Your task to perform on an android device: Show me popular games on the Play Store Image 0: 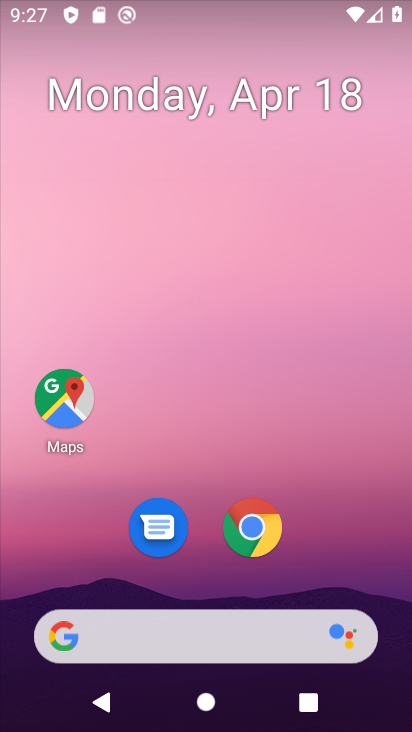
Step 0: drag from (298, 418) to (318, 83)
Your task to perform on an android device: Show me popular games on the Play Store Image 1: 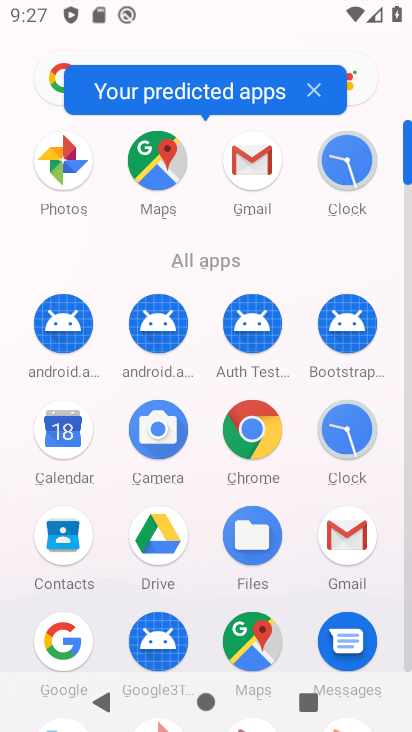
Step 1: drag from (267, 521) to (250, 232)
Your task to perform on an android device: Show me popular games on the Play Store Image 2: 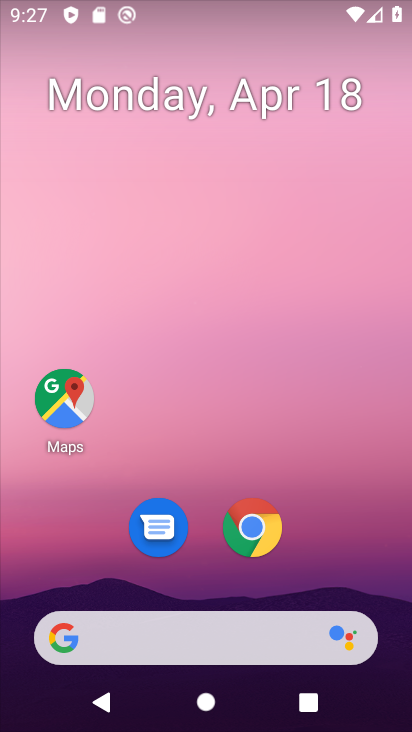
Step 2: drag from (289, 499) to (300, 50)
Your task to perform on an android device: Show me popular games on the Play Store Image 3: 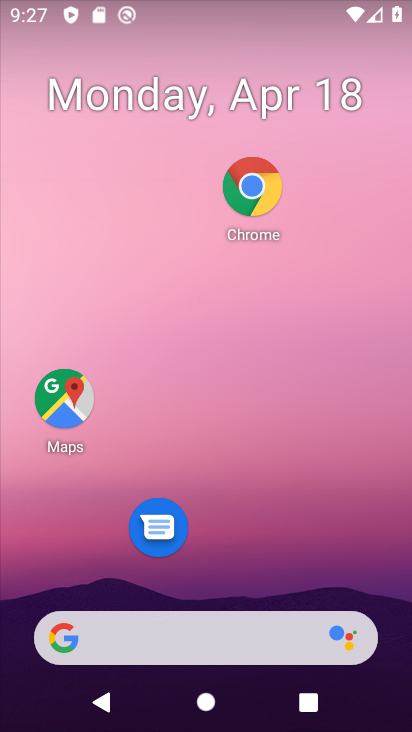
Step 3: drag from (309, 97) to (300, 8)
Your task to perform on an android device: Show me popular games on the Play Store Image 4: 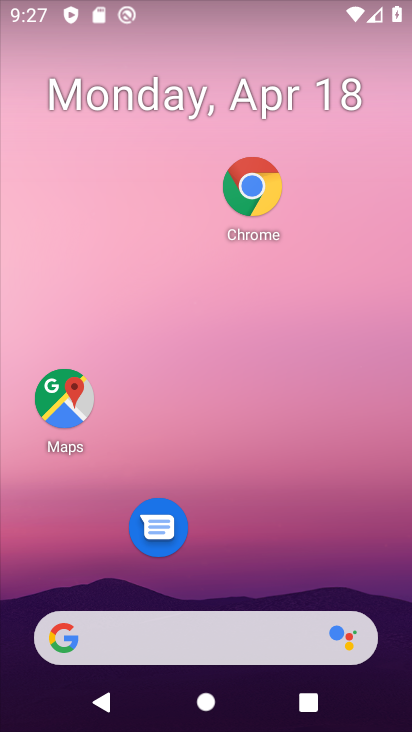
Step 4: drag from (233, 483) to (212, 25)
Your task to perform on an android device: Show me popular games on the Play Store Image 5: 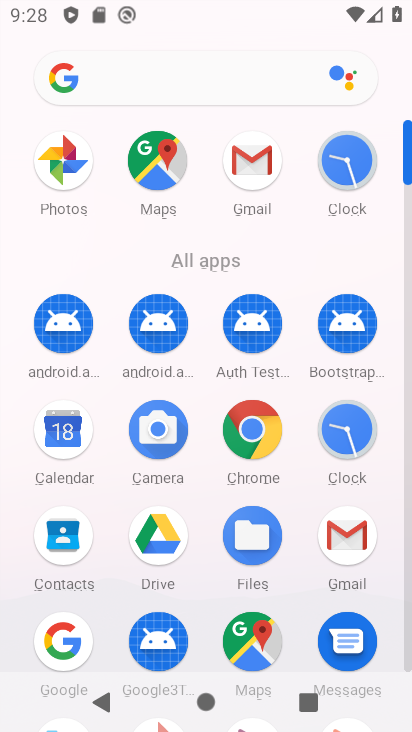
Step 5: drag from (292, 545) to (314, 212)
Your task to perform on an android device: Show me popular games on the Play Store Image 6: 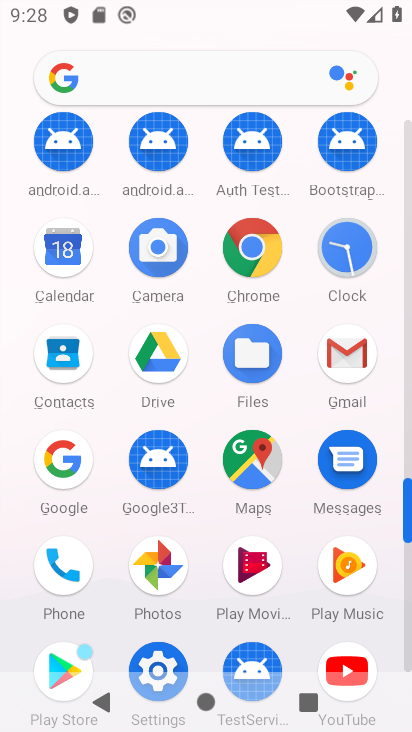
Step 6: click (71, 663)
Your task to perform on an android device: Show me popular games on the Play Store Image 7: 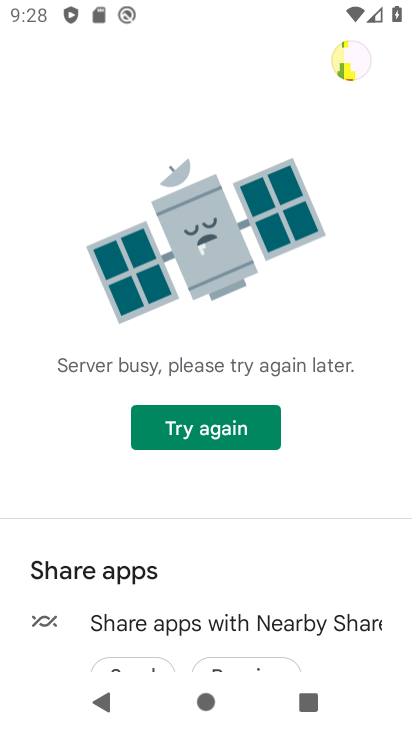
Step 7: click (238, 421)
Your task to perform on an android device: Show me popular games on the Play Store Image 8: 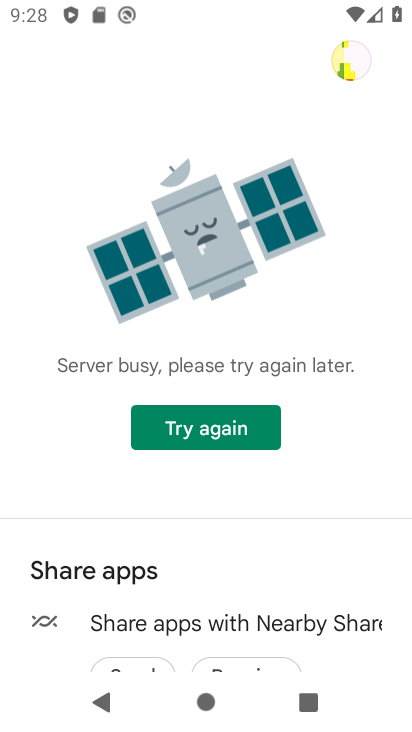
Step 8: click (238, 421)
Your task to perform on an android device: Show me popular games on the Play Store Image 9: 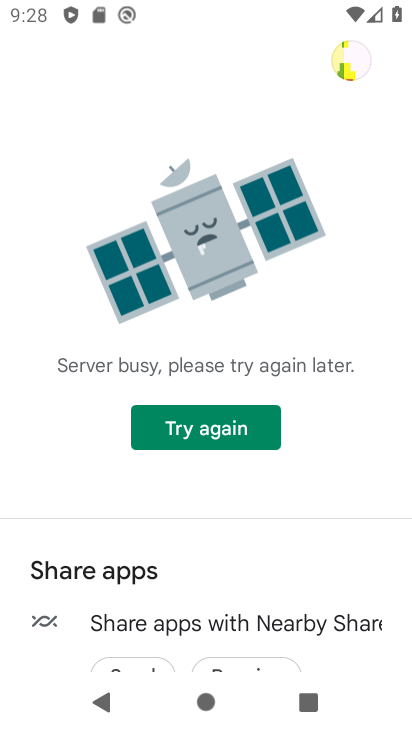
Step 9: click (238, 421)
Your task to perform on an android device: Show me popular games on the Play Store Image 10: 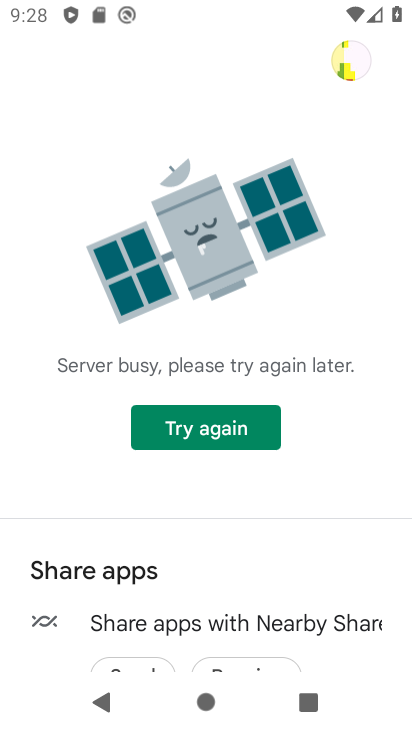
Step 10: task complete